Your task to perform on an android device: Go to CNN.com Image 0: 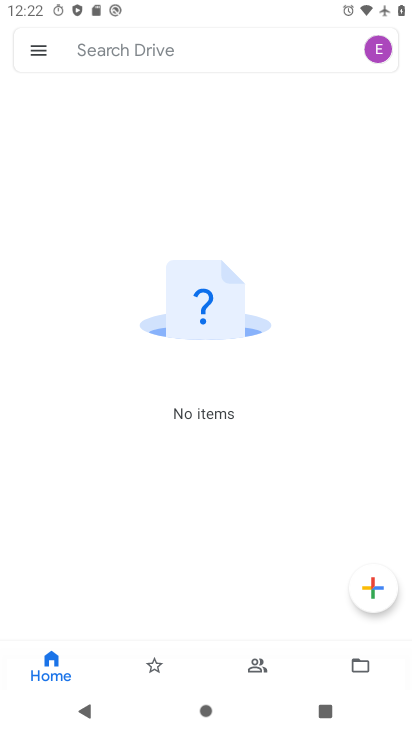
Step 0: press home button
Your task to perform on an android device: Go to CNN.com Image 1: 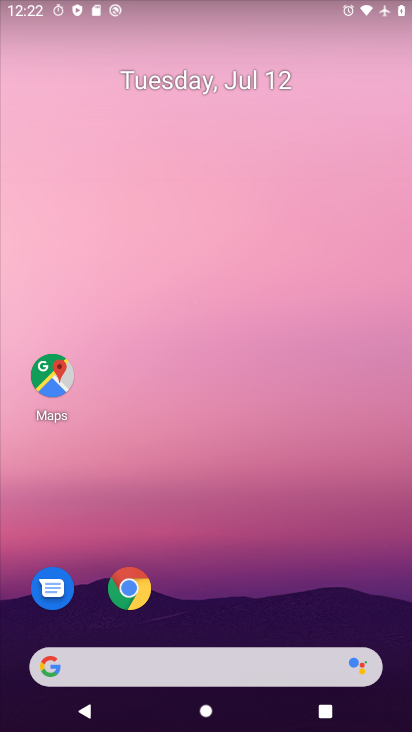
Step 1: click (124, 599)
Your task to perform on an android device: Go to CNN.com Image 2: 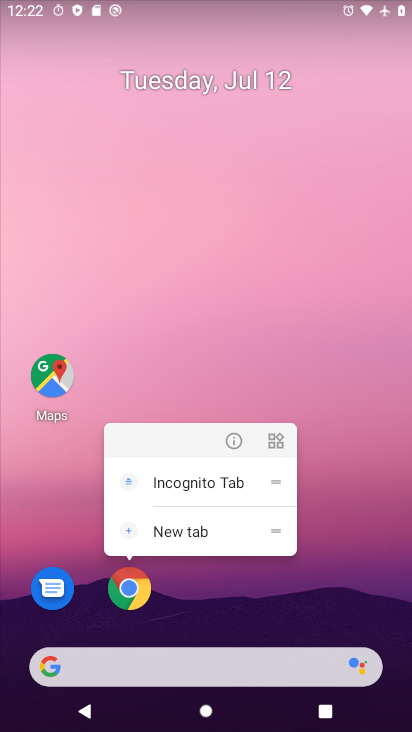
Step 2: click (135, 596)
Your task to perform on an android device: Go to CNN.com Image 3: 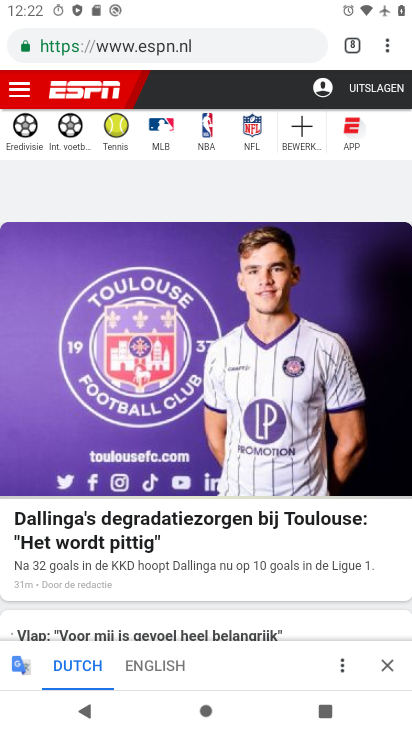
Step 3: drag from (389, 47) to (260, 95)
Your task to perform on an android device: Go to CNN.com Image 4: 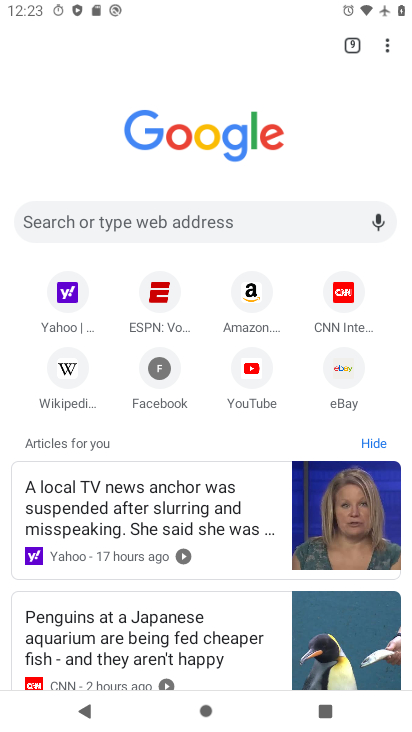
Step 4: click (186, 206)
Your task to perform on an android device: Go to CNN.com Image 5: 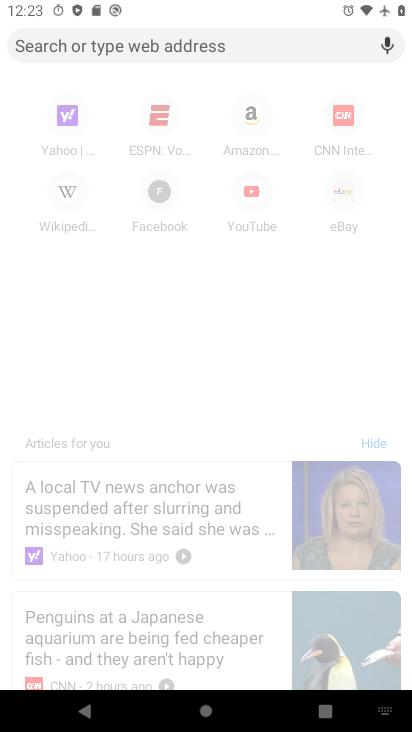
Step 5: type "cnn.com"
Your task to perform on an android device: Go to CNN.com Image 6: 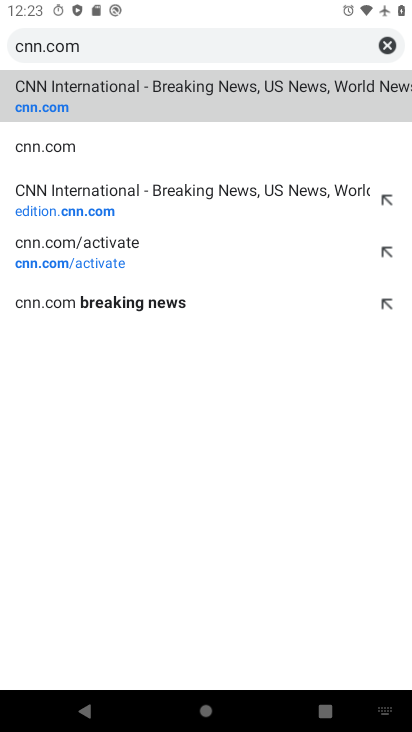
Step 6: click (246, 104)
Your task to perform on an android device: Go to CNN.com Image 7: 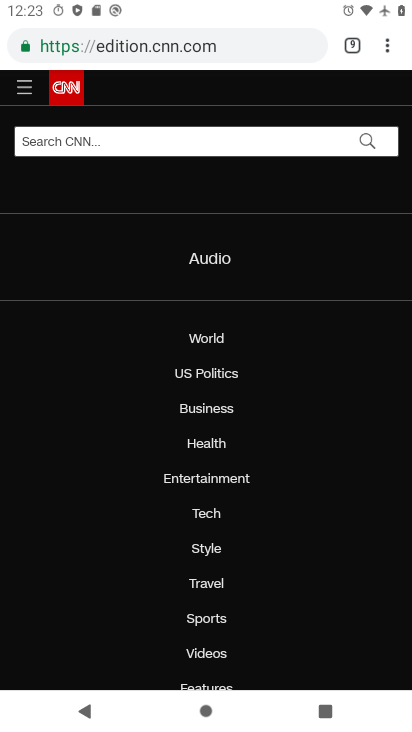
Step 7: task complete